Your task to perform on an android device: turn notification dots off Image 0: 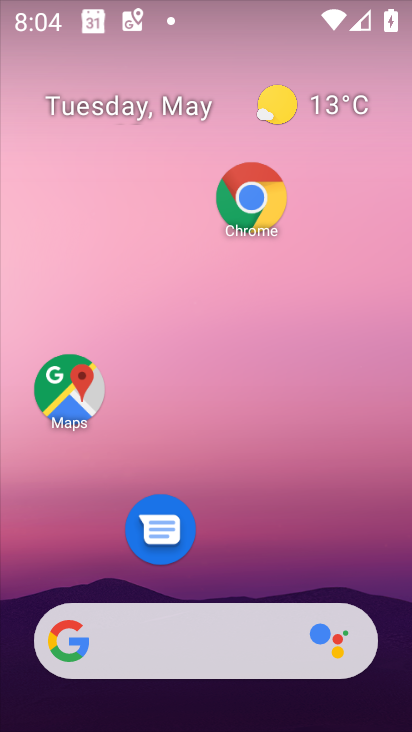
Step 0: drag from (280, 571) to (240, 150)
Your task to perform on an android device: turn notification dots off Image 1: 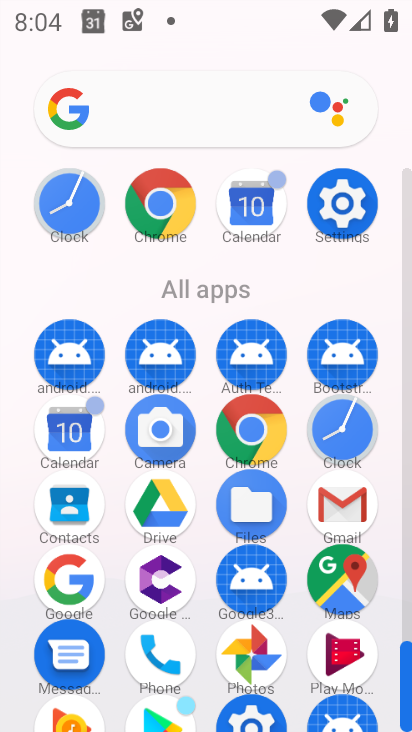
Step 1: click (342, 198)
Your task to perform on an android device: turn notification dots off Image 2: 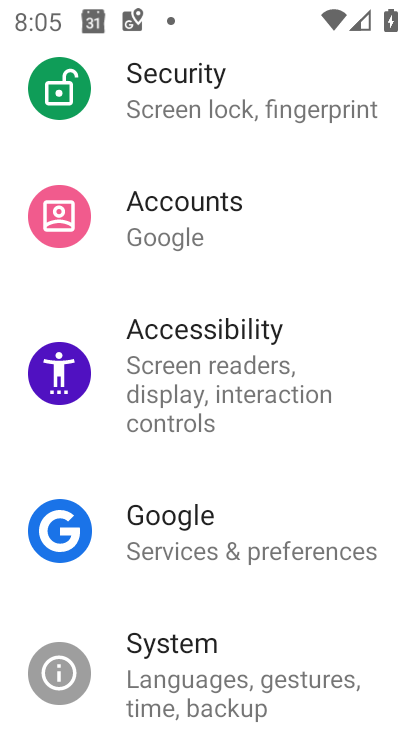
Step 2: drag from (218, 303) to (306, 567)
Your task to perform on an android device: turn notification dots off Image 3: 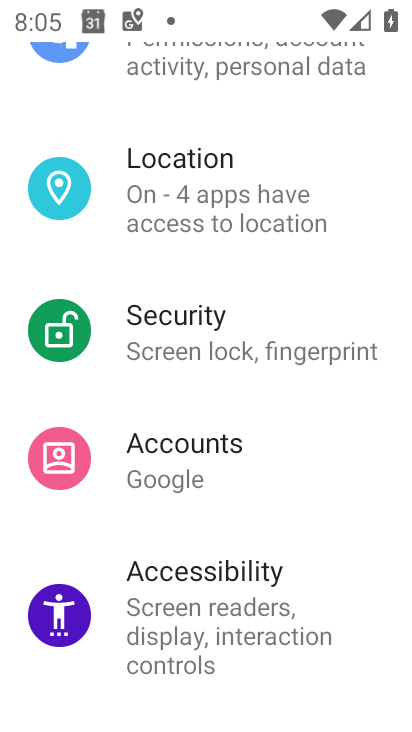
Step 3: drag from (237, 298) to (244, 665)
Your task to perform on an android device: turn notification dots off Image 4: 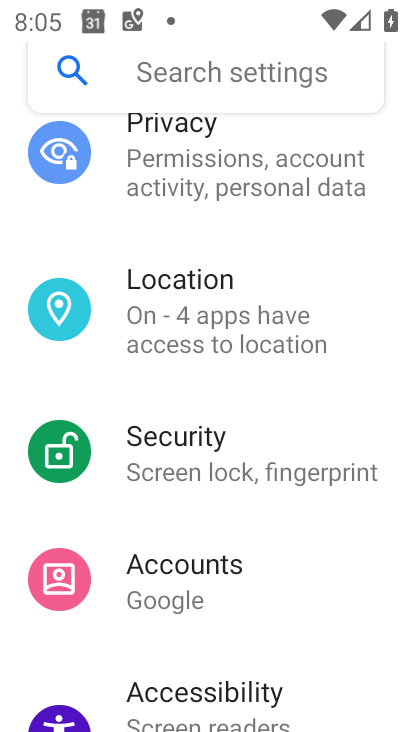
Step 4: drag from (200, 209) to (238, 663)
Your task to perform on an android device: turn notification dots off Image 5: 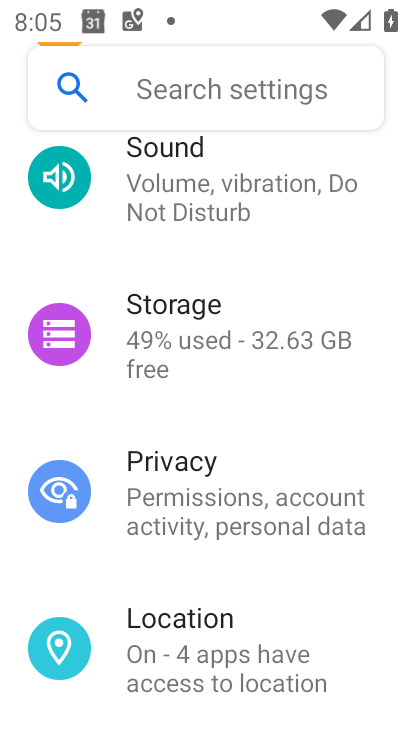
Step 5: drag from (251, 294) to (310, 706)
Your task to perform on an android device: turn notification dots off Image 6: 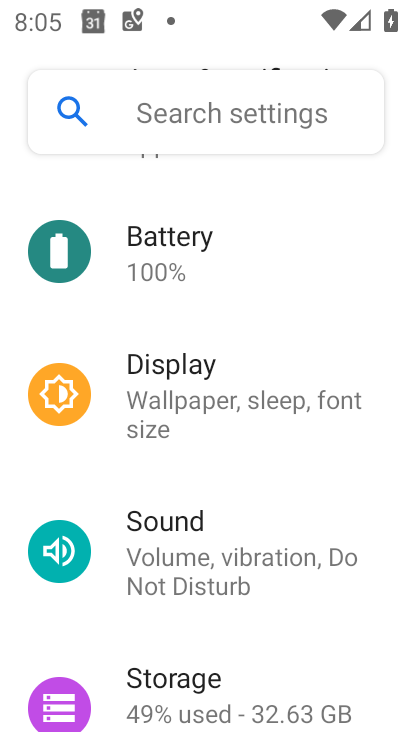
Step 6: drag from (240, 345) to (299, 695)
Your task to perform on an android device: turn notification dots off Image 7: 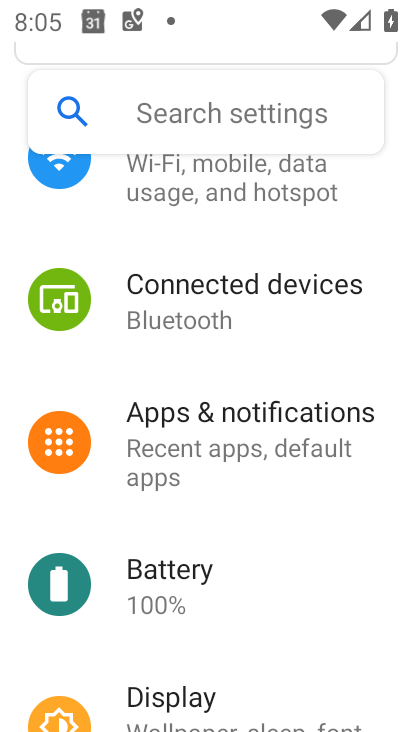
Step 7: click (216, 443)
Your task to perform on an android device: turn notification dots off Image 8: 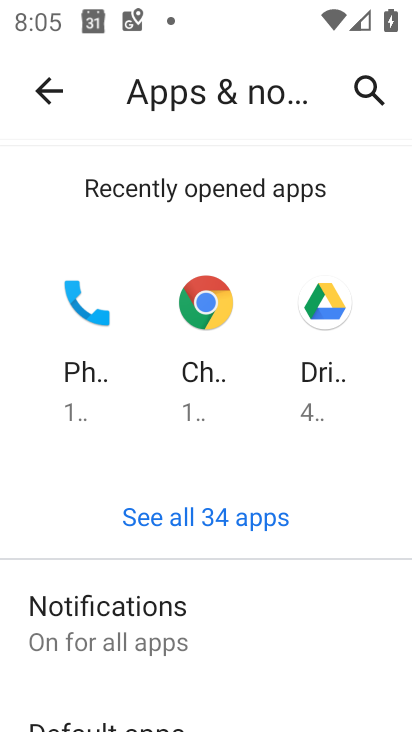
Step 8: click (221, 629)
Your task to perform on an android device: turn notification dots off Image 9: 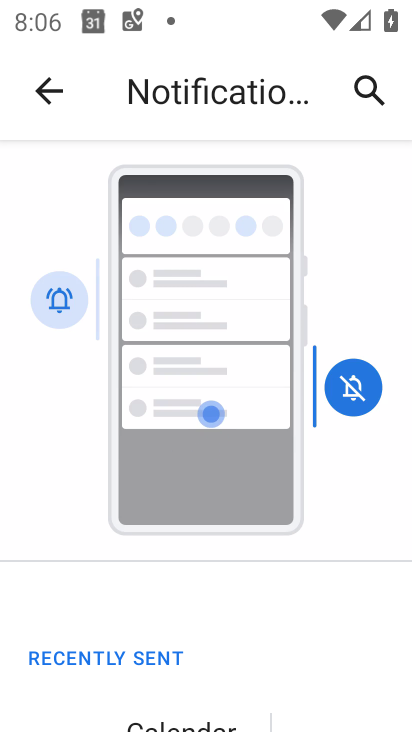
Step 9: drag from (248, 621) to (237, 38)
Your task to perform on an android device: turn notification dots off Image 10: 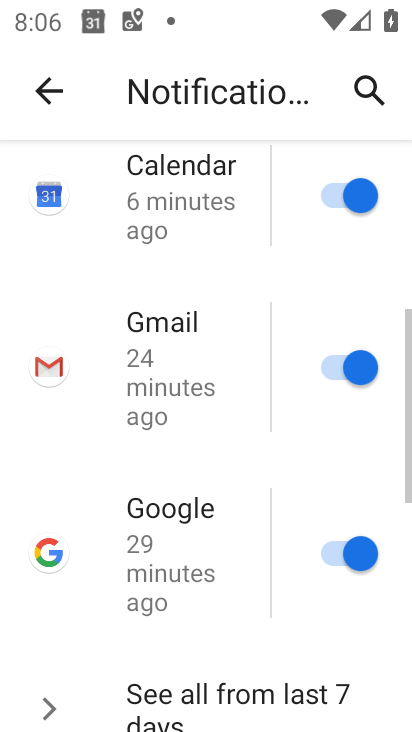
Step 10: drag from (218, 498) to (269, 138)
Your task to perform on an android device: turn notification dots off Image 11: 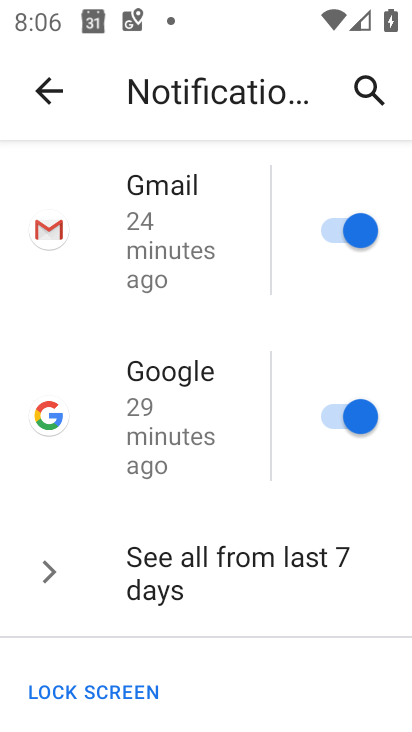
Step 11: drag from (175, 662) to (169, 152)
Your task to perform on an android device: turn notification dots off Image 12: 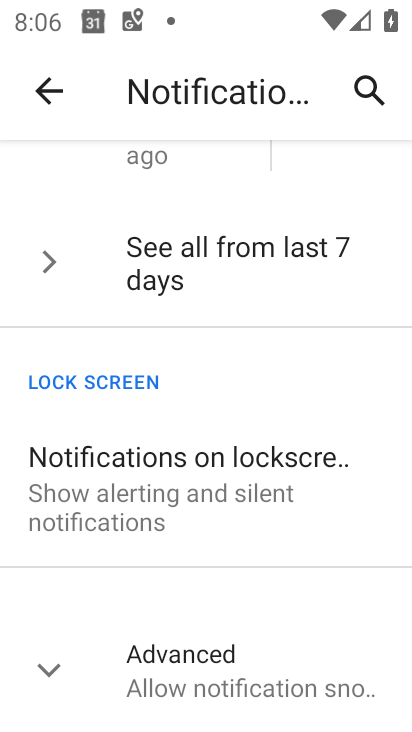
Step 12: click (181, 697)
Your task to perform on an android device: turn notification dots off Image 13: 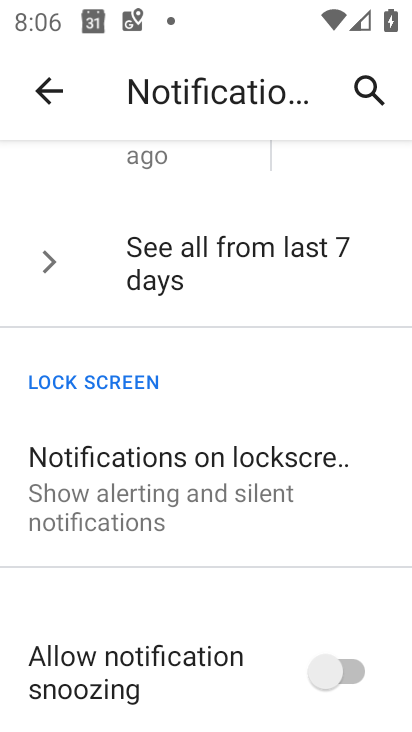
Step 13: drag from (241, 607) to (301, 311)
Your task to perform on an android device: turn notification dots off Image 14: 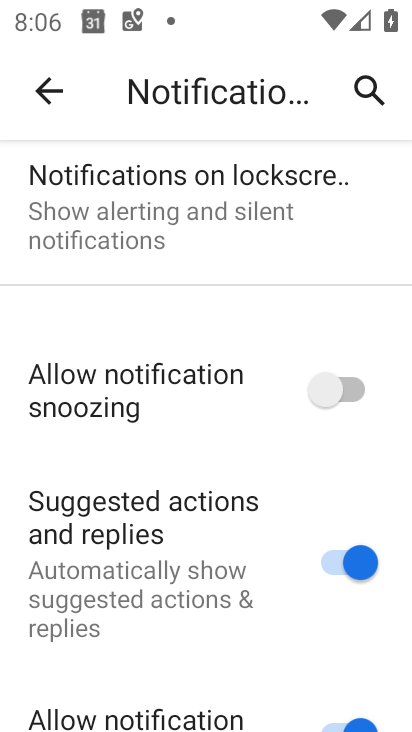
Step 14: drag from (214, 504) to (229, 211)
Your task to perform on an android device: turn notification dots off Image 15: 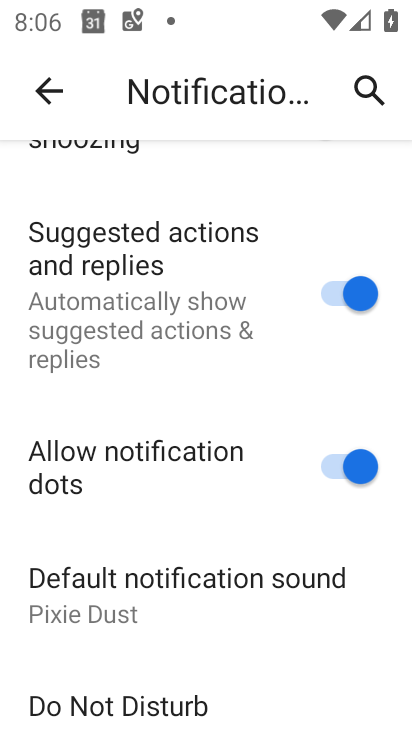
Step 15: click (318, 450)
Your task to perform on an android device: turn notification dots off Image 16: 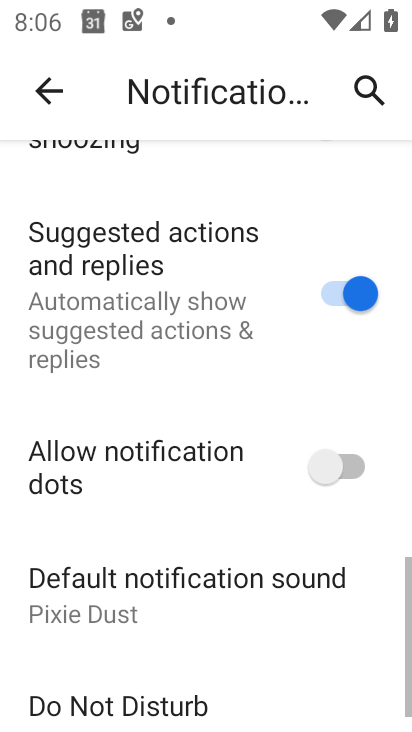
Step 16: task complete